Your task to perform on an android device: Open Chrome and go to the settings page Image 0: 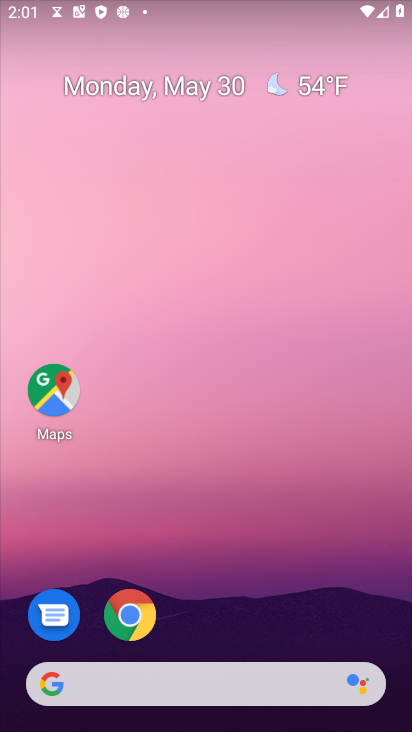
Step 0: drag from (212, 552) to (204, 0)
Your task to perform on an android device: Open Chrome and go to the settings page Image 1: 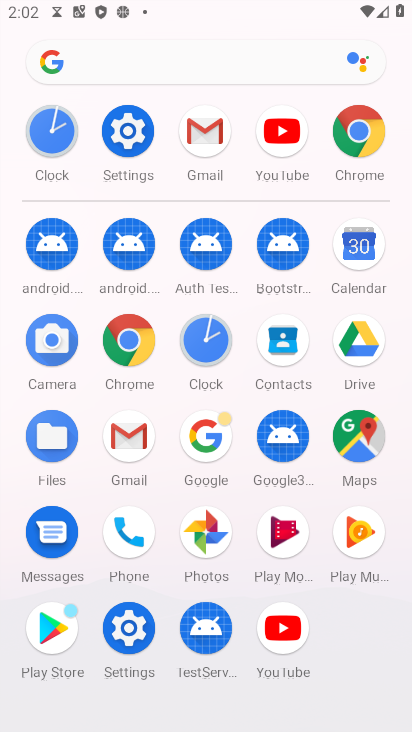
Step 1: click (357, 142)
Your task to perform on an android device: Open Chrome and go to the settings page Image 2: 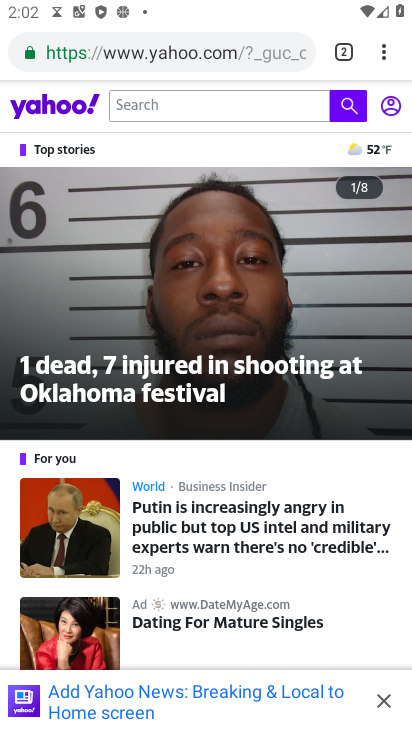
Step 2: task complete